Your task to perform on an android device: turn off data saver in the chrome app Image 0: 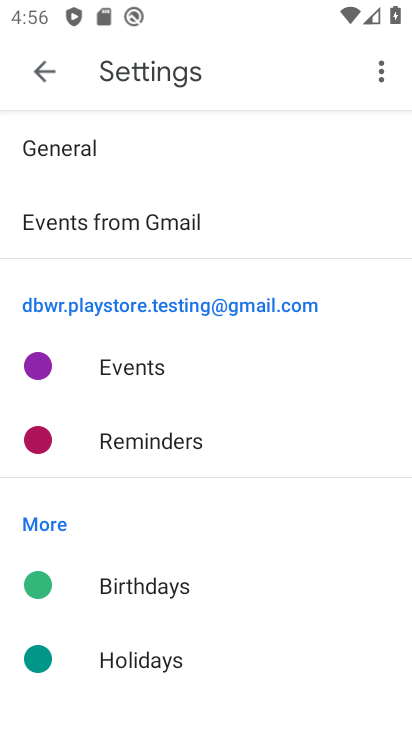
Step 0: press back button
Your task to perform on an android device: turn off data saver in the chrome app Image 1: 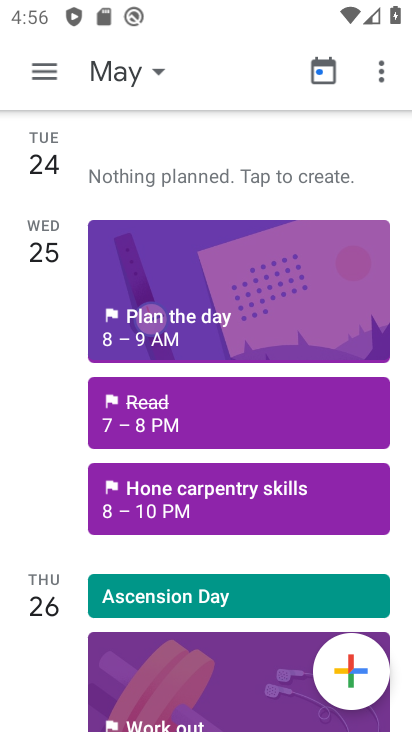
Step 1: press back button
Your task to perform on an android device: turn off data saver in the chrome app Image 2: 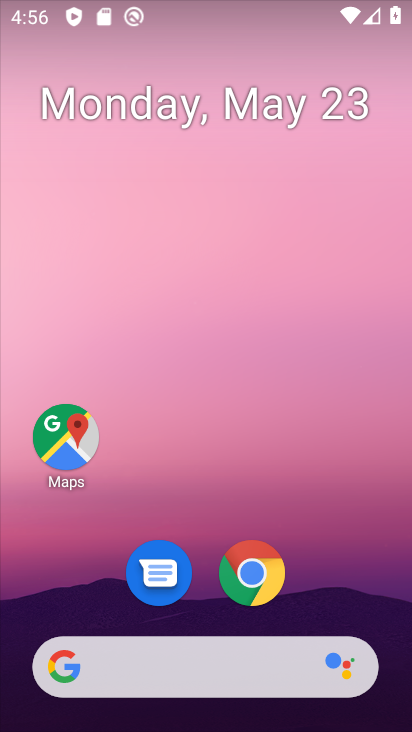
Step 2: click (250, 572)
Your task to perform on an android device: turn off data saver in the chrome app Image 3: 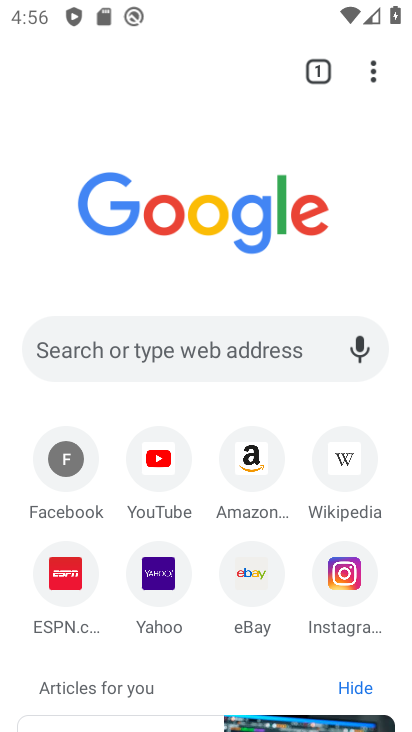
Step 3: click (374, 72)
Your task to perform on an android device: turn off data saver in the chrome app Image 4: 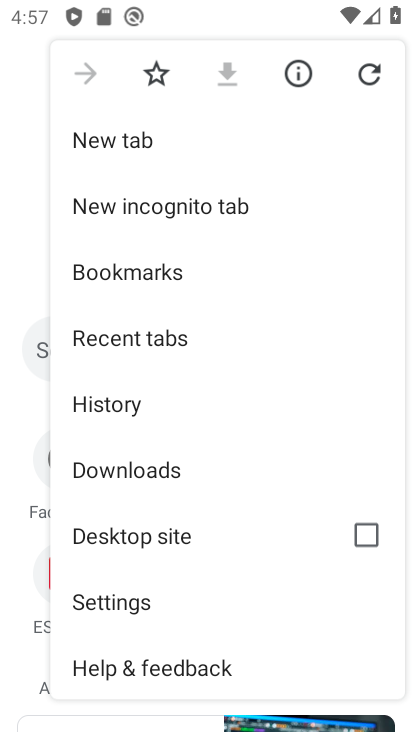
Step 4: drag from (172, 425) to (206, 373)
Your task to perform on an android device: turn off data saver in the chrome app Image 5: 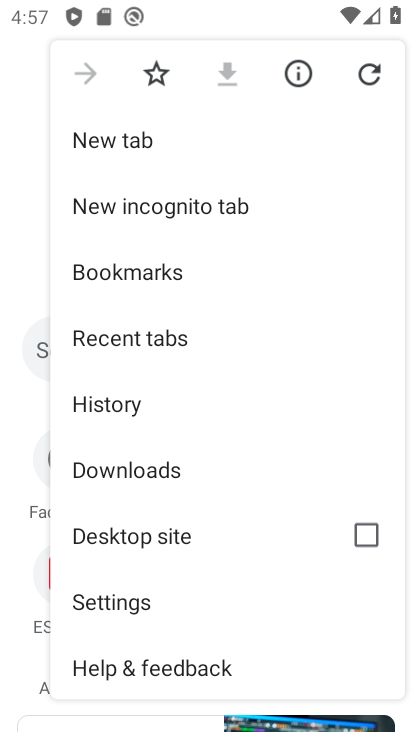
Step 5: click (117, 602)
Your task to perform on an android device: turn off data saver in the chrome app Image 6: 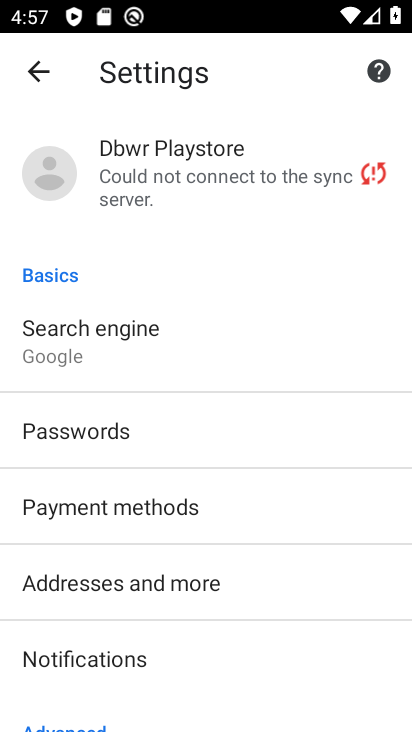
Step 6: drag from (138, 615) to (174, 536)
Your task to perform on an android device: turn off data saver in the chrome app Image 7: 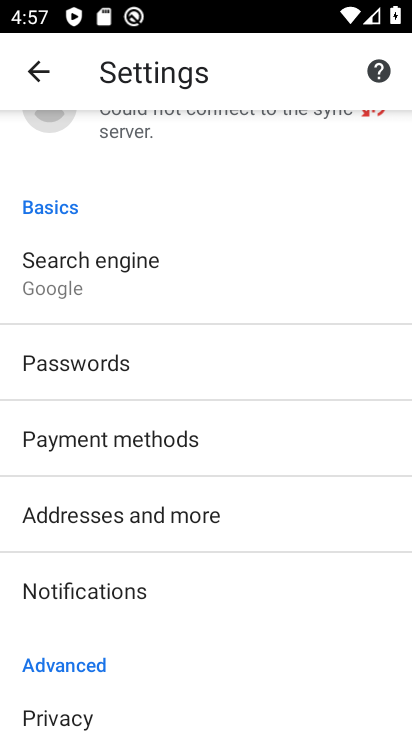
Step 7: drag from (151, 615) to (187, 532)
Your task to perform on an android device: turn off data saver in the chrome app Image 8: 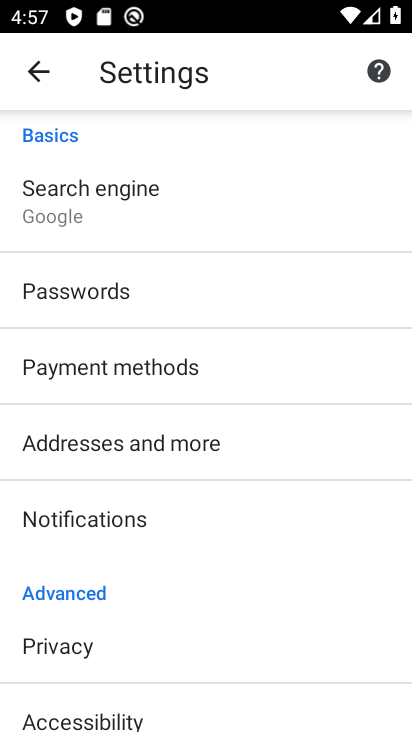
Step 8: drag from (155, 634) to (201, 556)
Your task to perform on an android device: turn off data saver in the chrome app Image 9: 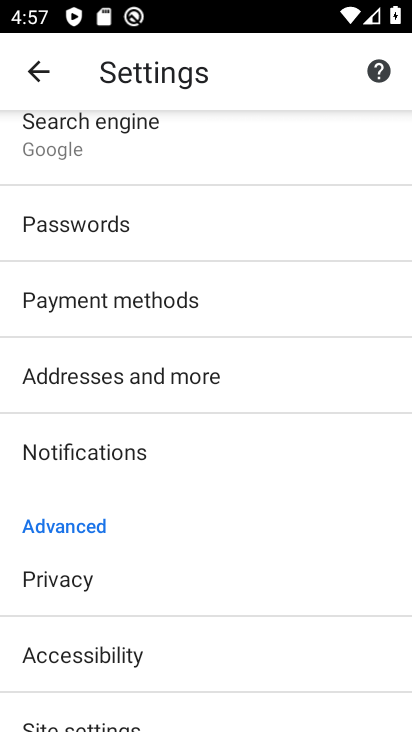
Step 9: drag from (163, 663) to (202, 580)
Your task to perform on an android device: turn off data saver in the chrome app Image 10: 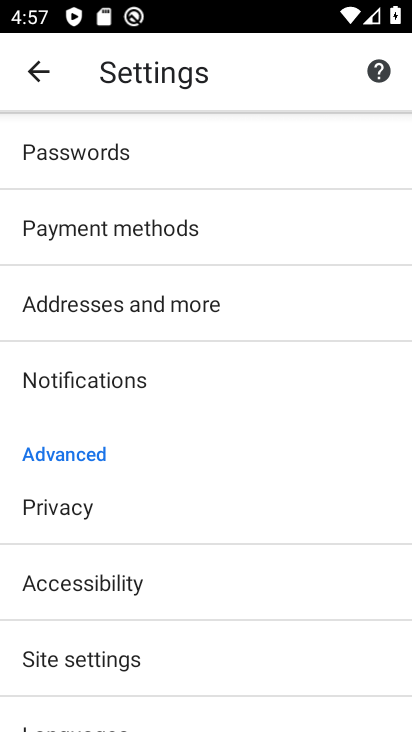
Step 10: drag from (150, 622) to (191, 551)
Your task to perform on an android device: turn off data saver in the chrome app Image 11: 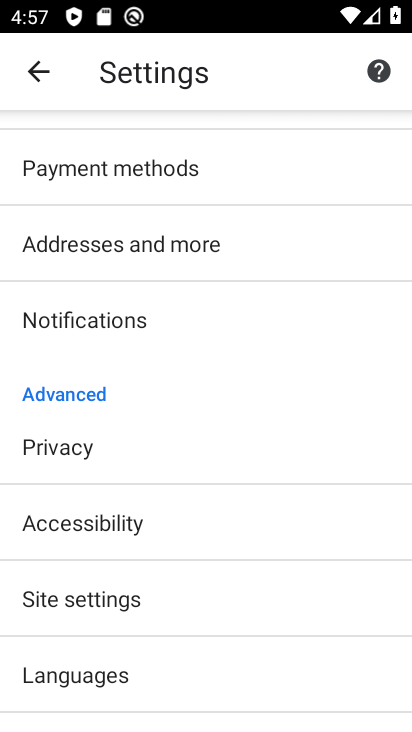
Step 11: drag from (133, 623) to (156, 566)
Your task to perform on an android device: turn off data saver in the chrome app Image 12: 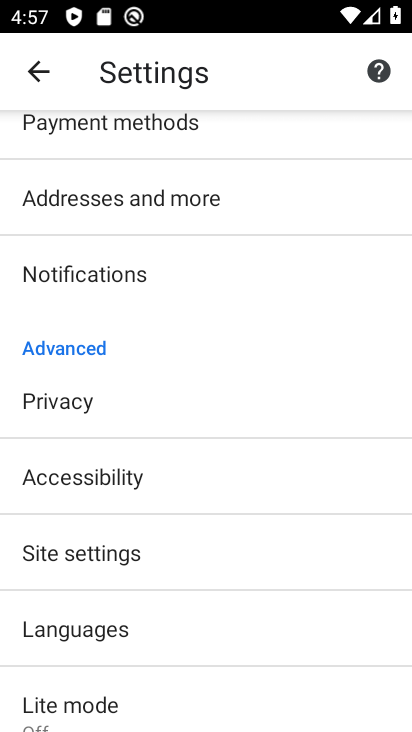
Step 12: drag from (104, 644) to (142, 568)
Your task to perform on an android device: turn off data saver in the chrome app Image 13: 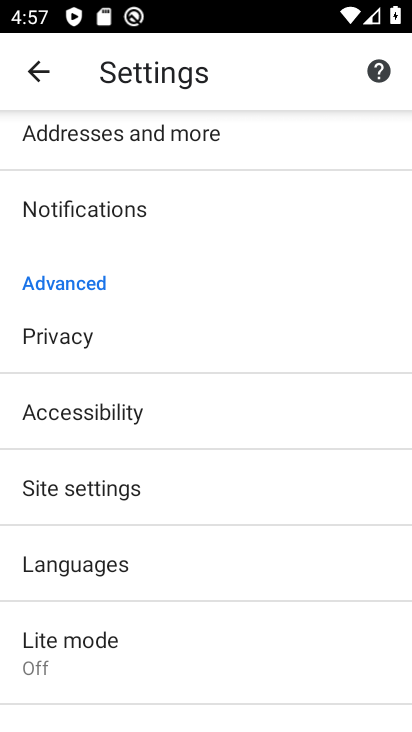
Step 13: click (64, 626)
Your task to perform on an android device: turn off data saver in the chrome app Image 14: 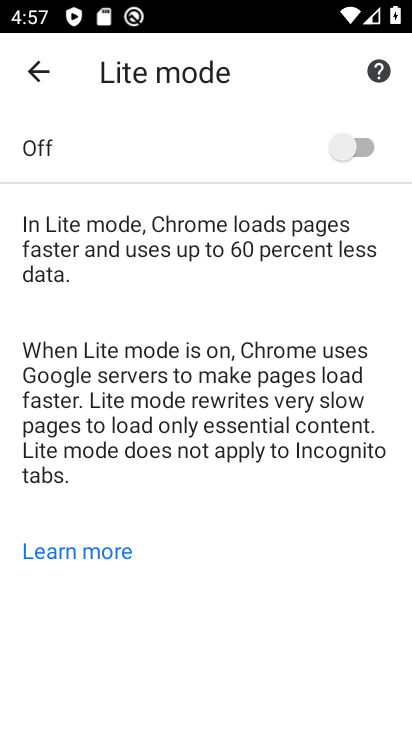
Step 14: task complete